Your task to perform on an android device: uninstall "Speedtest by Ookla" Image 0: 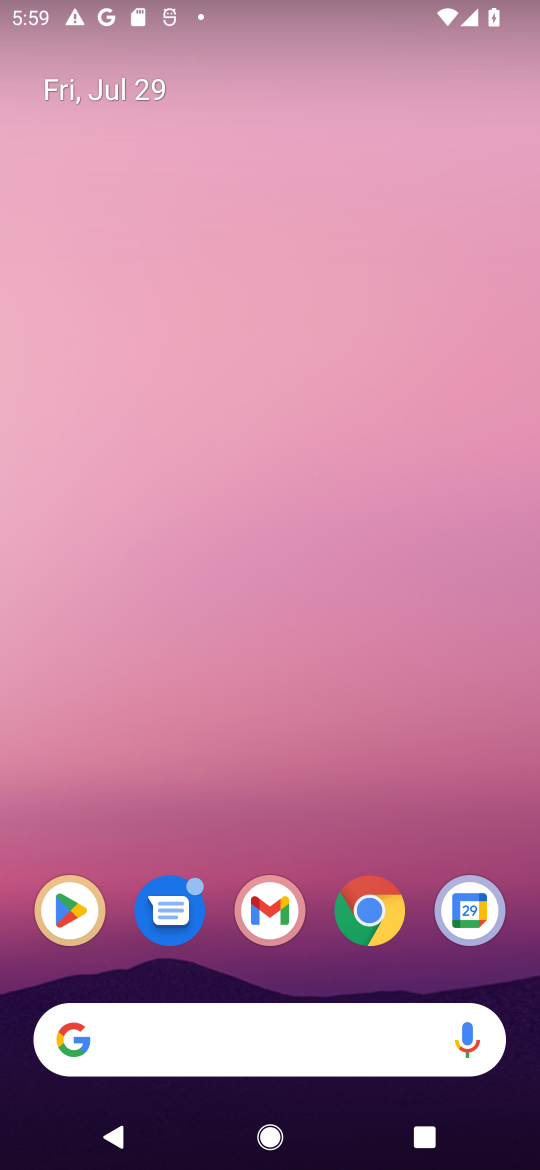
Step 0: drag from (293, 983) to (267, 491)
Your task to perform on an android device: uninstall "Speedtest by Ookla" Image 1: 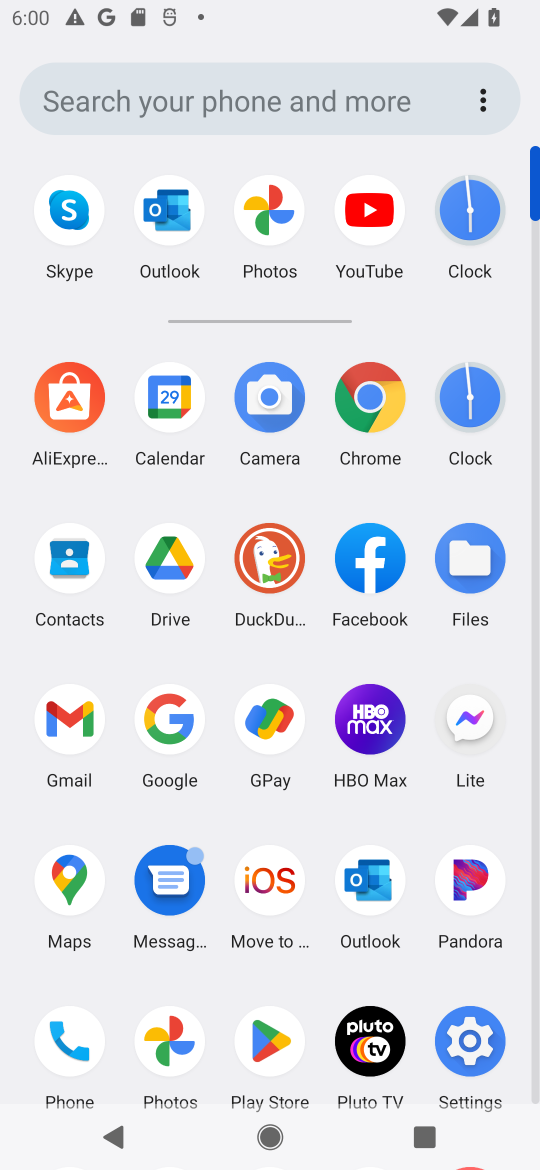
Step 1: click (283, 1050)
Your task to perform on an android device: uninstall "Speedtest by Ookla" Image 2: 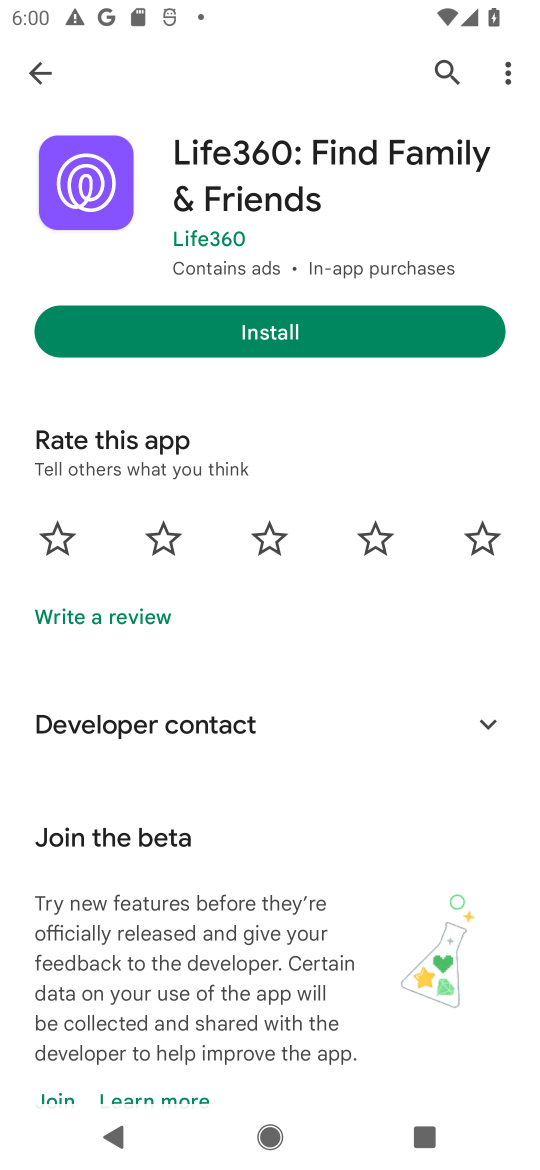
Step 2: click (25, 80)
Your task to perform on an android device: uninstall "Speedtest by Ookla" Image 3: 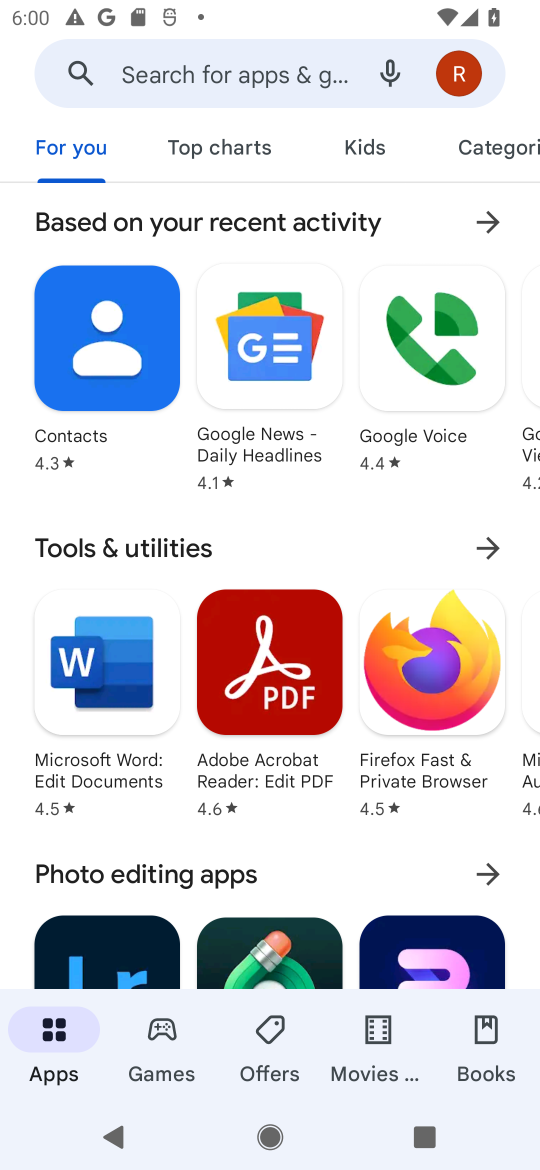
Step 3: type "Speedtest by Ookla"
Your task to perform on an android device: uninstall "Speedtest by Ookla" Image 4: 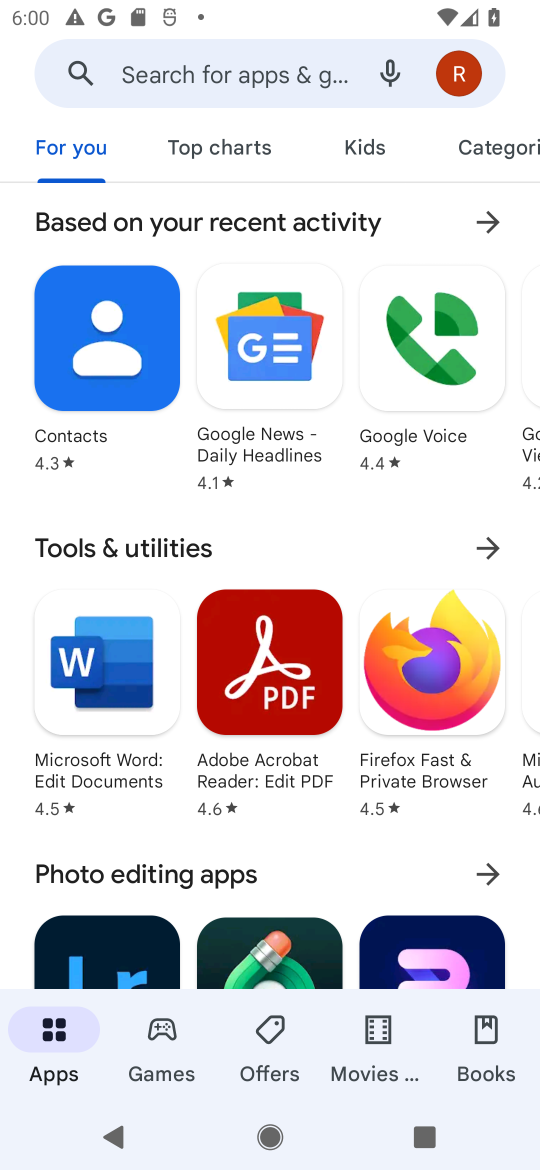
Step 4: click (187, 72)
Your task to perform on an android device: uninstall "Speedtest by Ookla" Image 5: 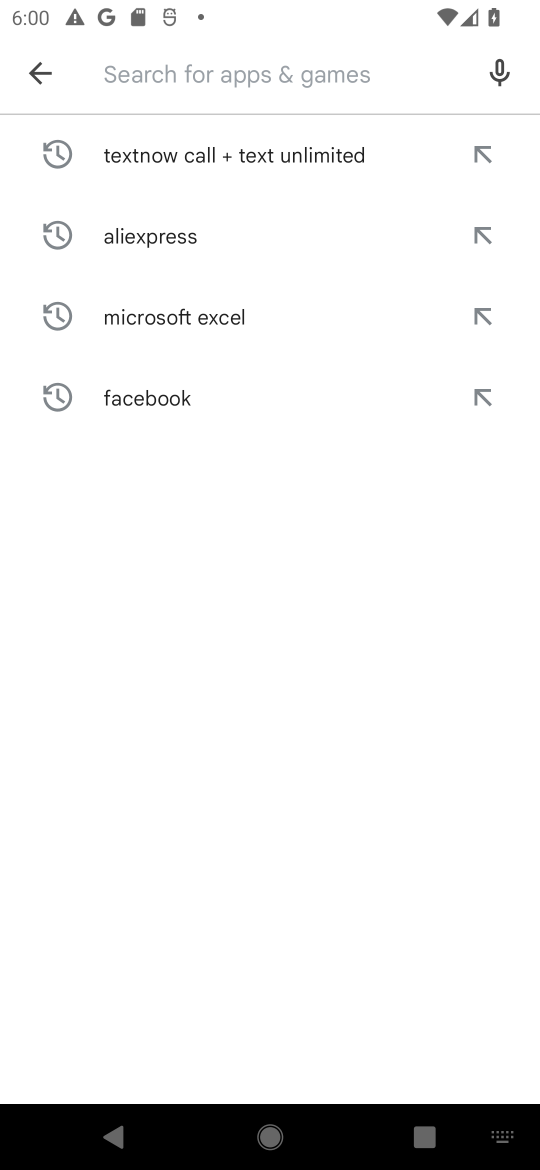
Step 5: type "Speedtest by Ookla"
Your task to perform on an android device: uninstall "Speedtest by Ookla" Image 6: 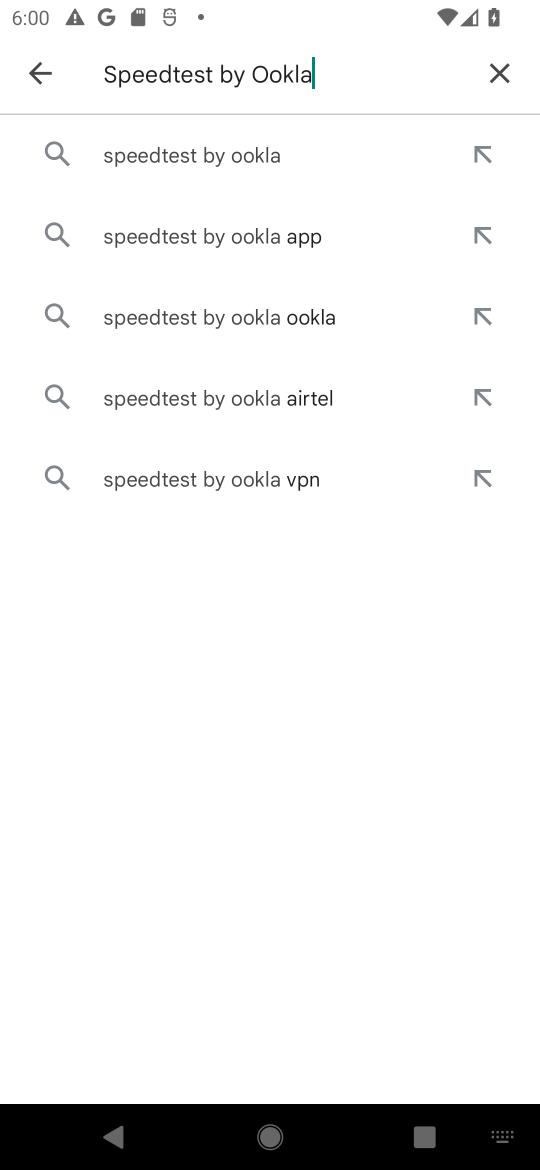
Step 6: click (203, 160)
Your task to perform on an android device: uninstall "Speedtest by Ookla" Image 7: 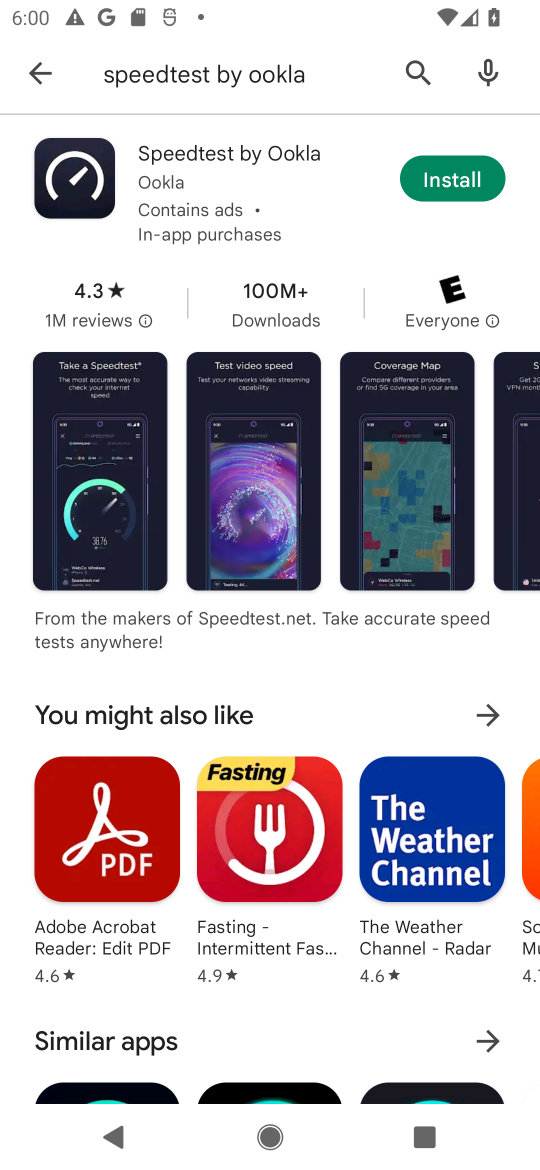
Step 7: task complete